Your task to perform on an android device: Open Google Image 0: 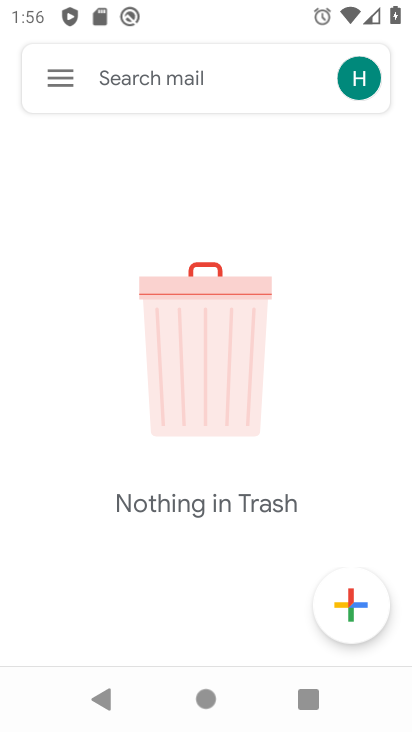
Step 0: press back button
Your task to perform on an android device: Open Google Image 1: 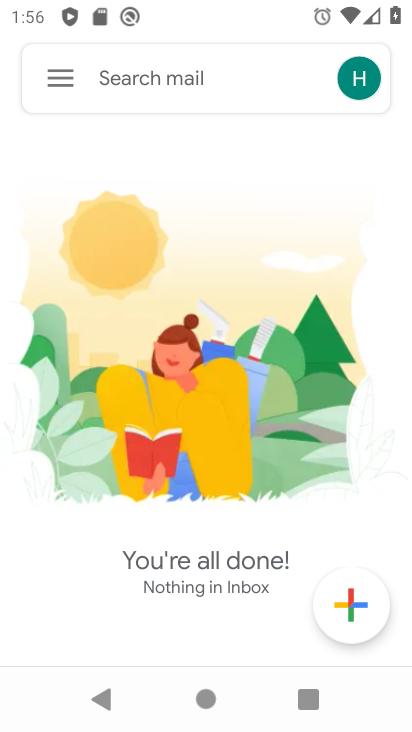
Step 1: press back button
Your task to perform on an android device: Open Google Image 2: 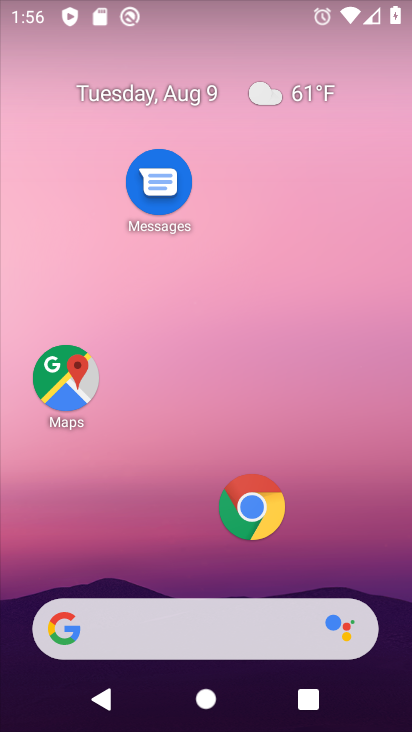
Step 2: drag from (128, 543) to (264, 77)
Your task to perform on an android device: Open Google Image 3: 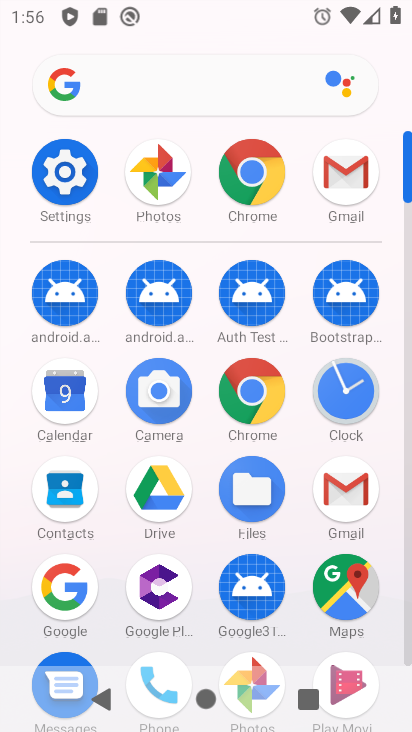
Step 3: click (64, 584)
Your task to perform on an android device: Open Google Image 4: 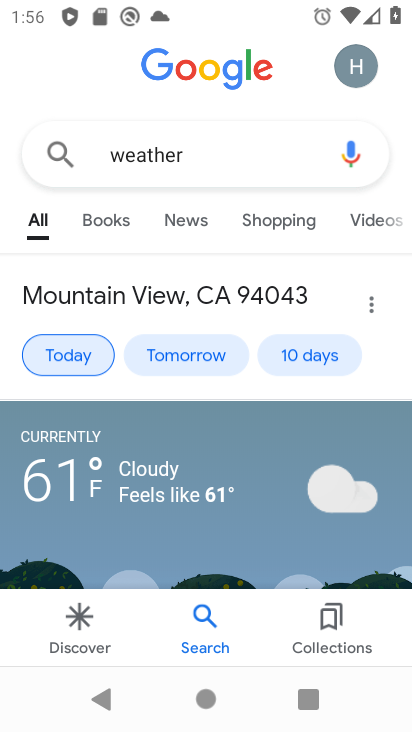
Step 4: task complete